Your task to perform on an android device: Go to Yahoo.com Image 0: 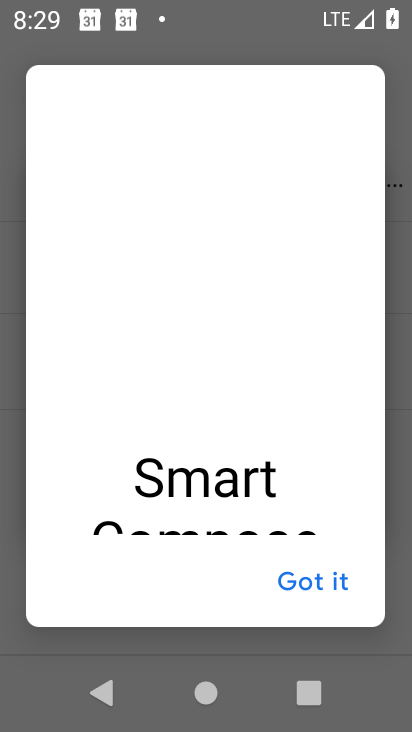
Step 0: press home button
Your task to perform on an android device: Go to Yahoo.com Image 1: 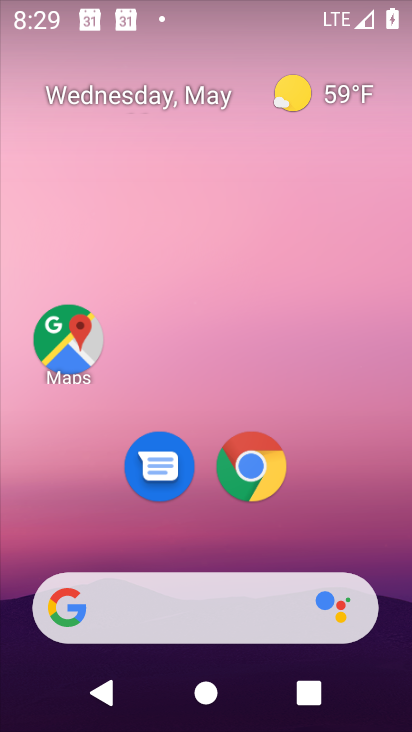
Step 1: click (255, 454)
Your task to perform on an android device: Go to Yahoo.com Image 2: 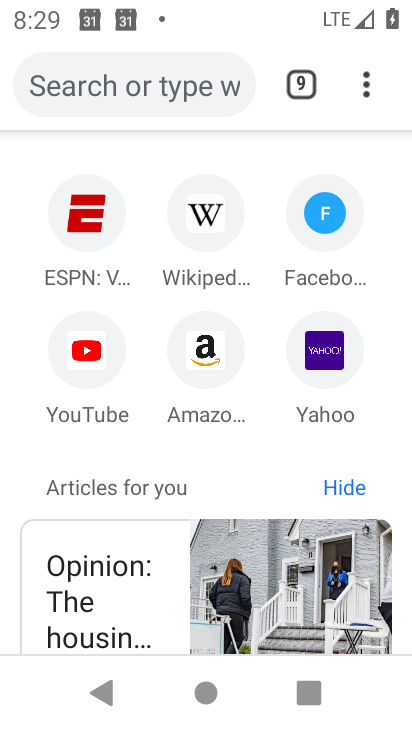
Step 2: click (344, 344)
Your task to perform on an android device: Go to Yahoo.com Image 3: 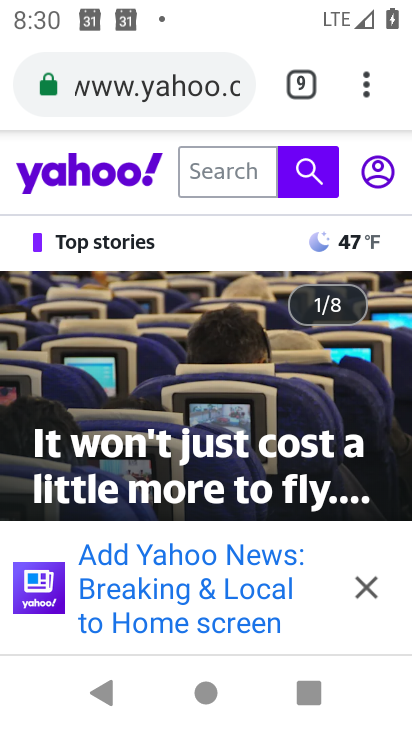
Step 3: task complete